Your task to perform on an android device: all mails in gmail Image 0: 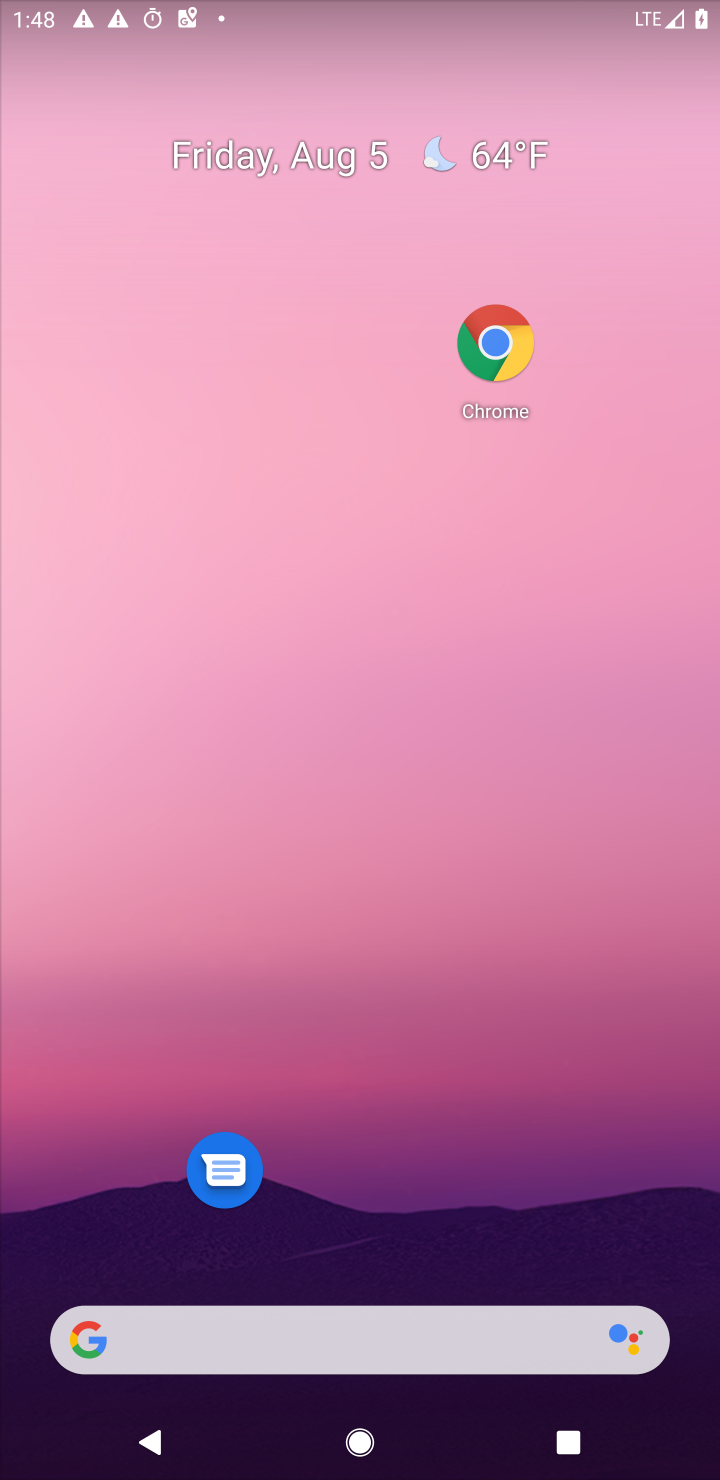
Step 0: drag from (250, 673) to (282, 12)
Your task to perform on an android device: all mails in gmail Image 1: 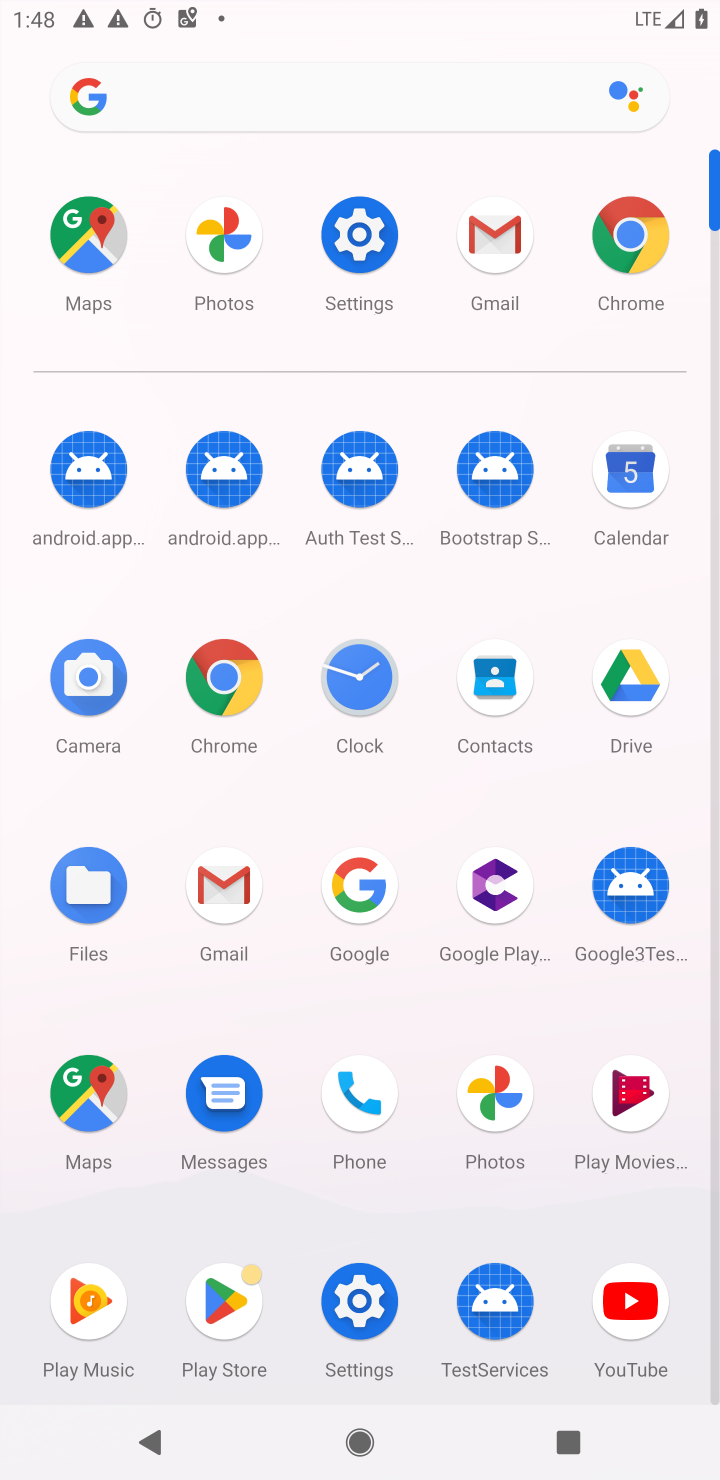
Step 1: click (244, 899)
Your task to perform on an android device: all mails in gmail Image 2: 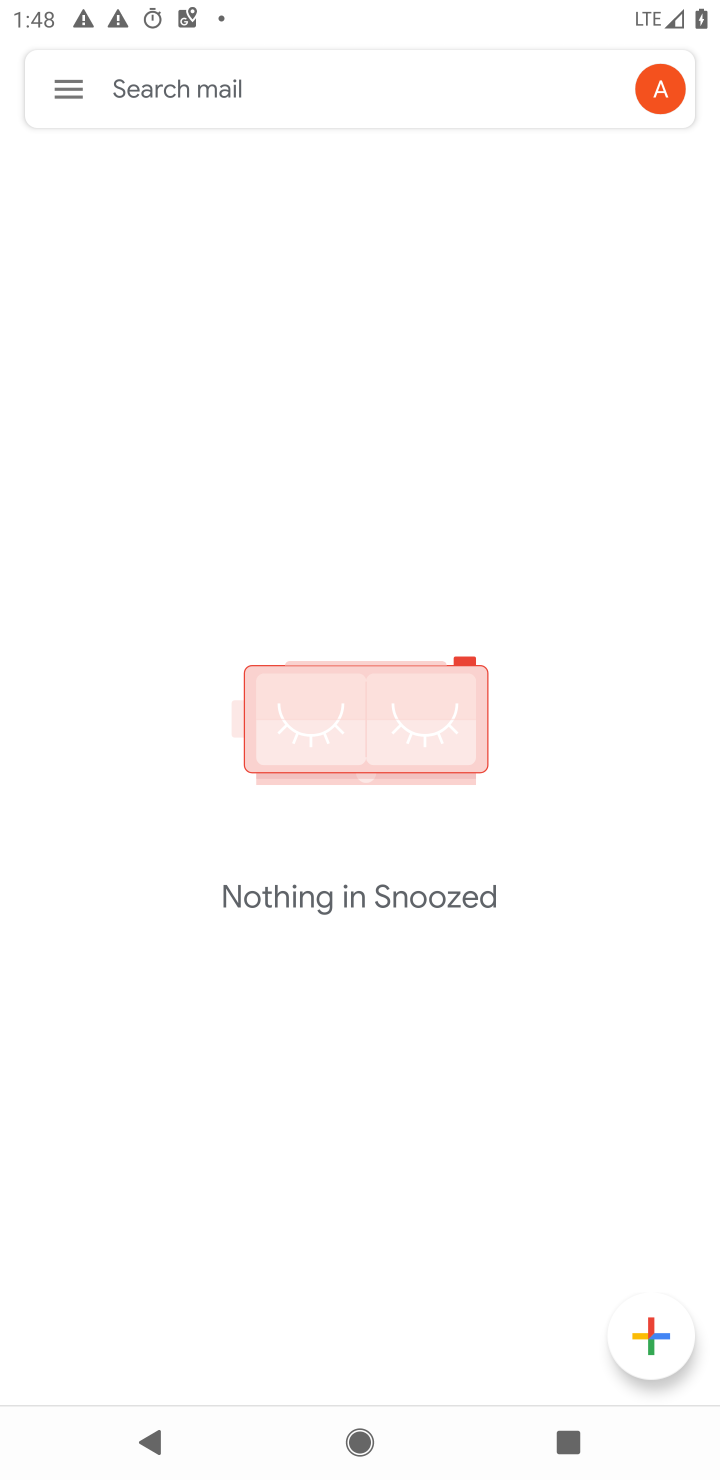
Step 2: click (46, 90)
Your task to perform on an android device: all mails in gmail Image 3: 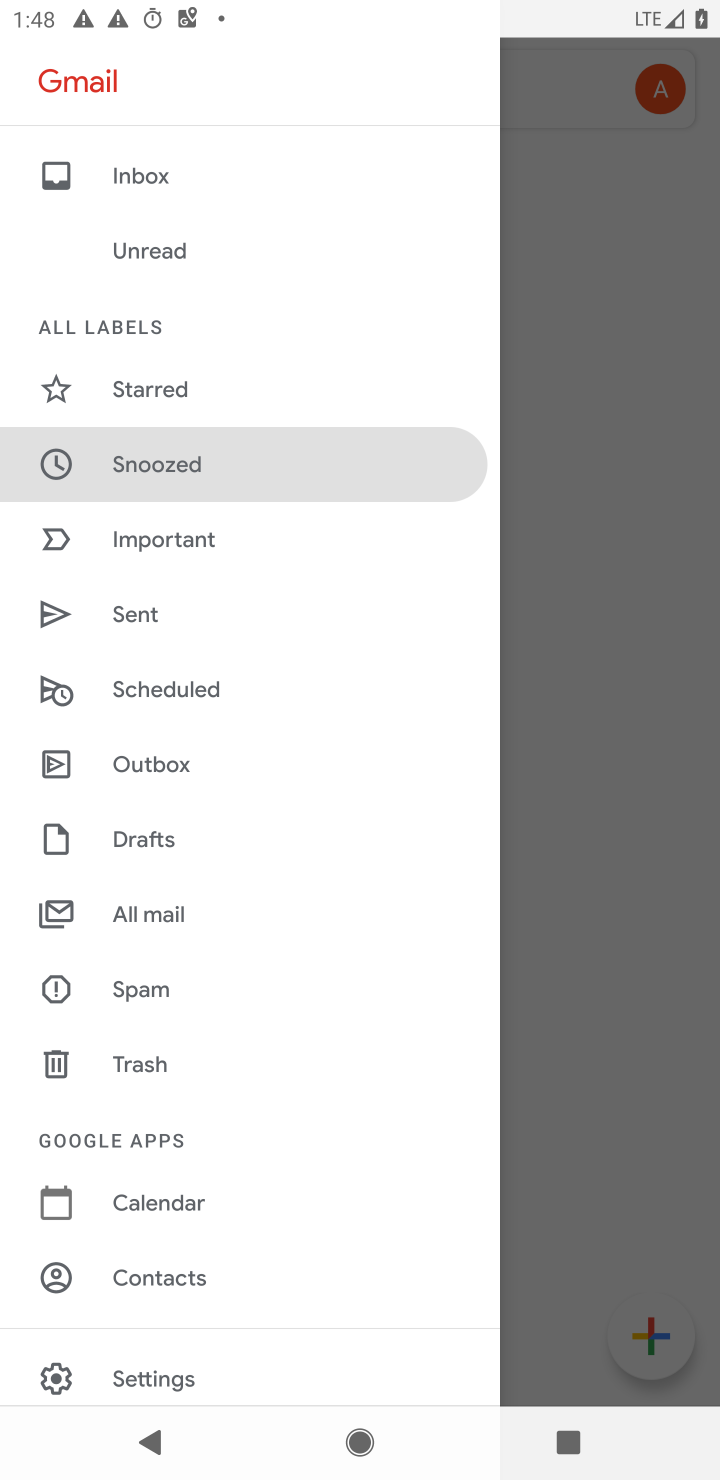
Step 3: click (174, 909)
Your task to perform on an android device: all mails in gmail Image 4: 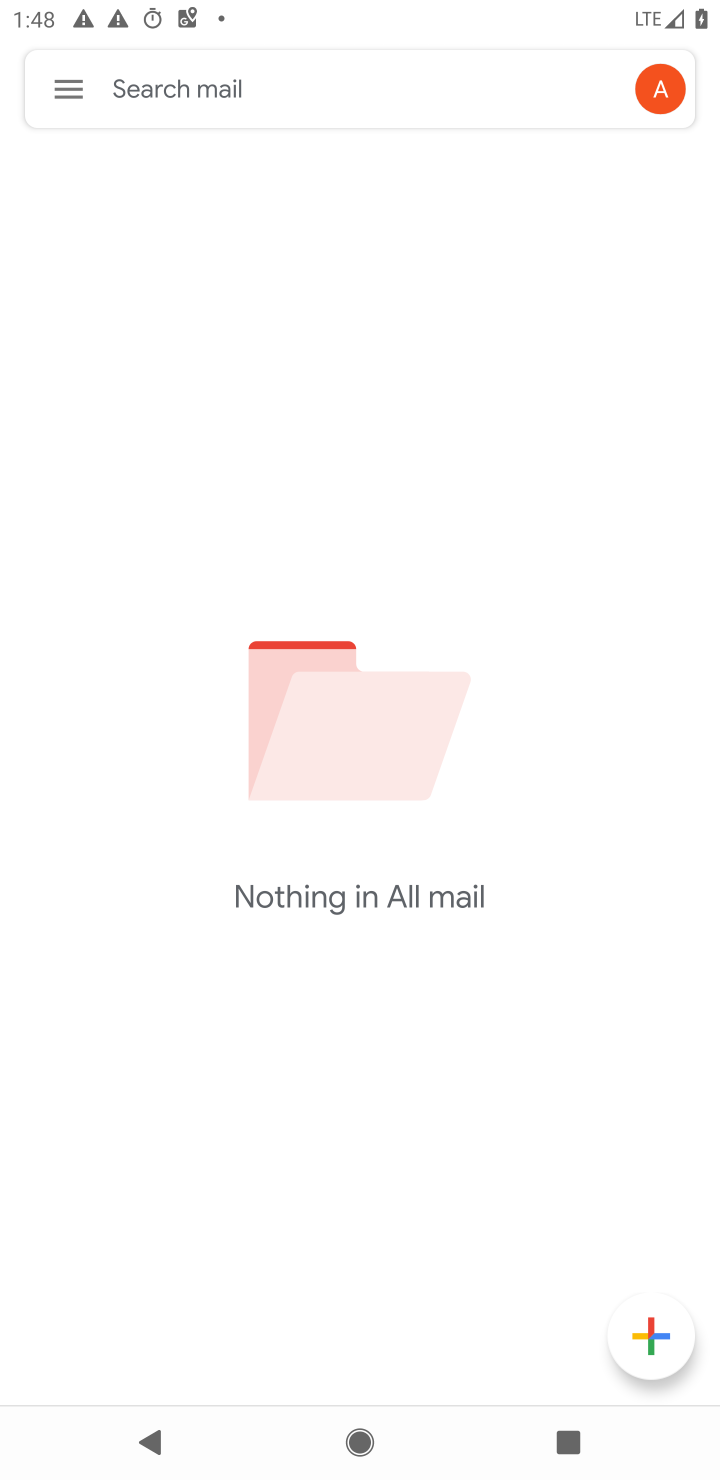
Step 4: task complete